Your task to perform on an android device: Open a new private window in Chrome Image 0: 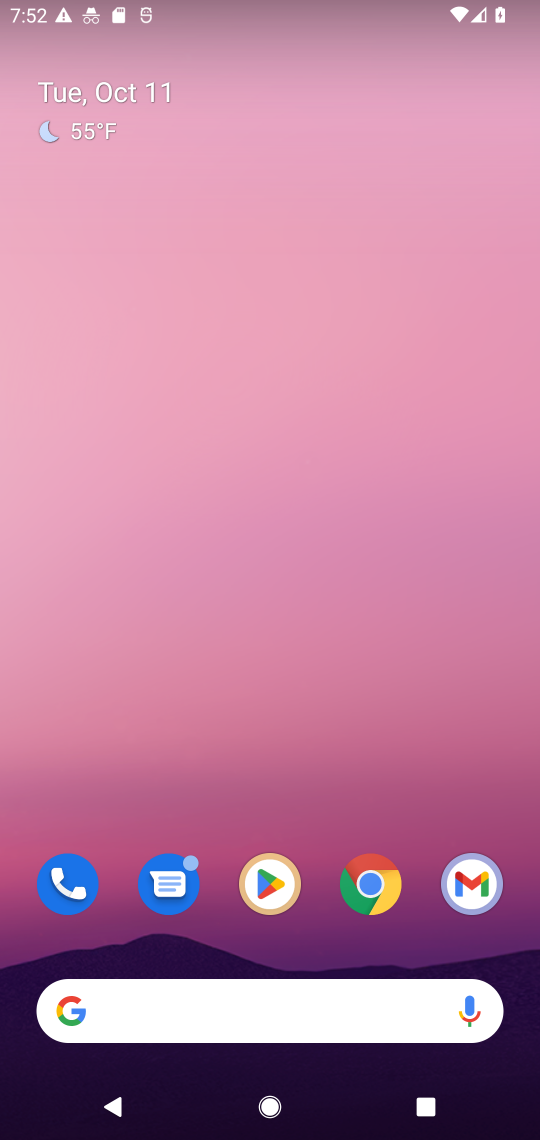
Step 0: drag from (277, 793) to (270, 13)
Your task to perform on an android device: Open a new private window in Chrome Image 1: 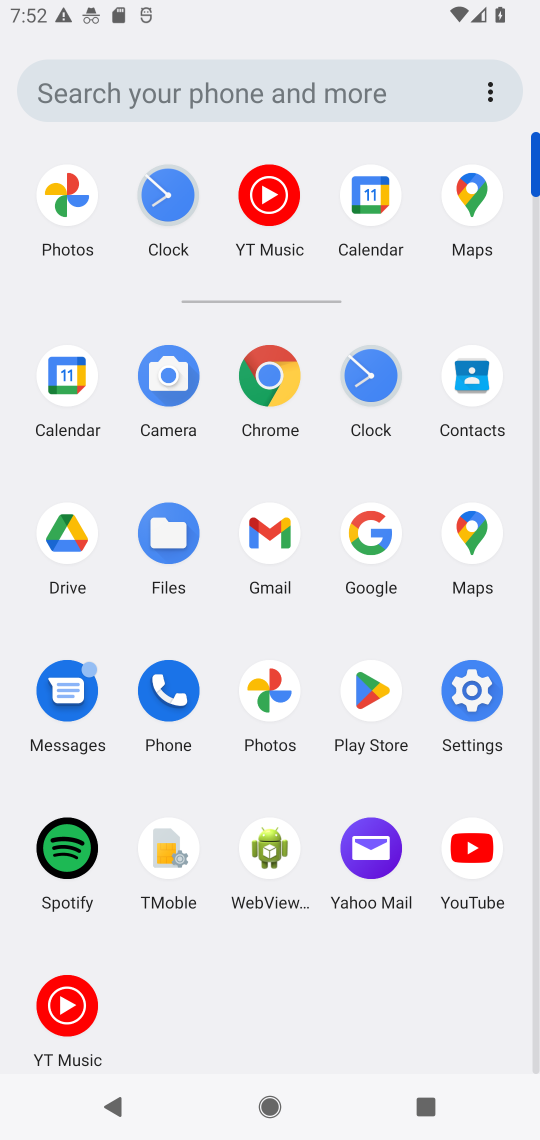
Step 1: click (270, 373)
Your task to perform on an android device: Open a new private window in Chrome Image 2: 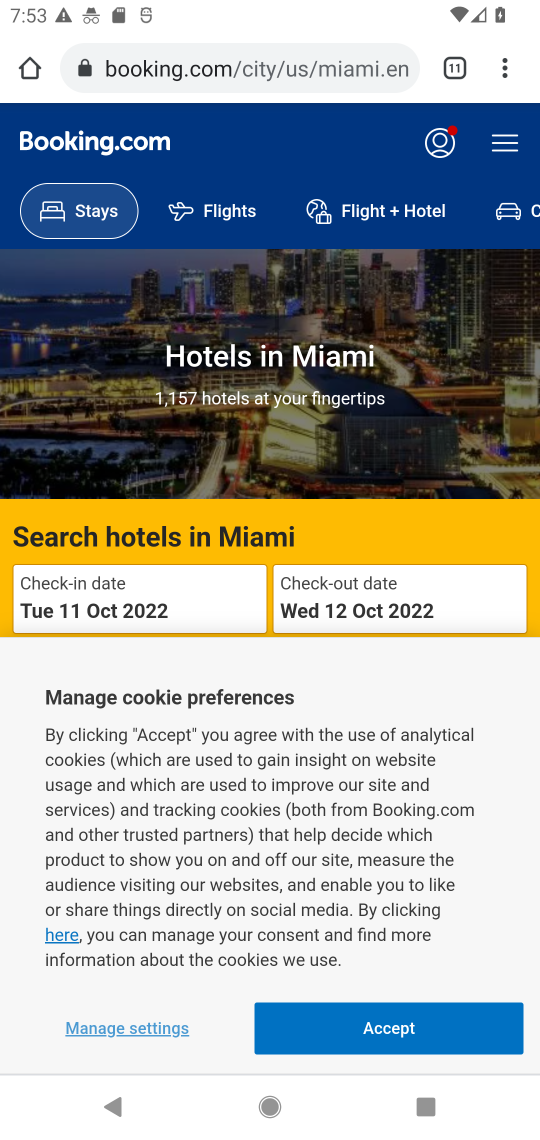
Step 2: task complete